Your task to perform on an android device: Open internet settings Image 0: 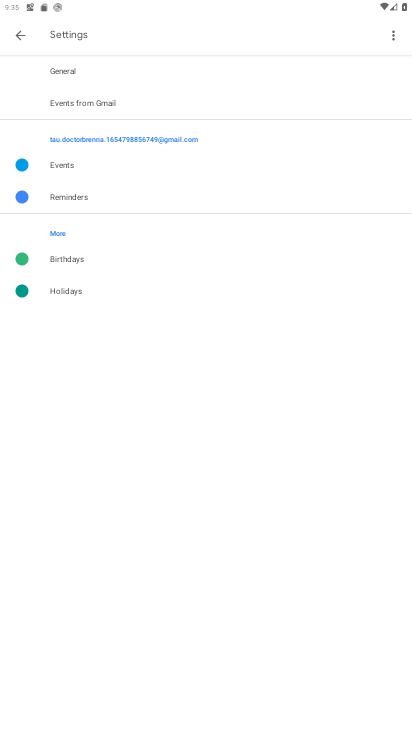
Step 0: press home button
Your task to perform on an android device: Open internet settings Image 1: 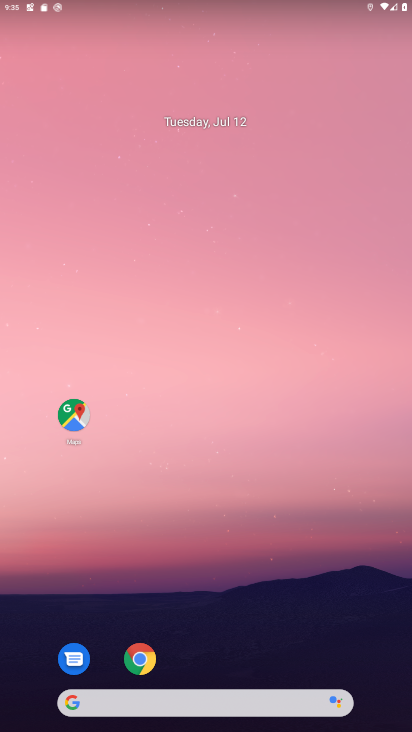
Step 1: drag from (231, 654) to (255, 66)
Your task to perform on an android device: Open internet settings Image 2: 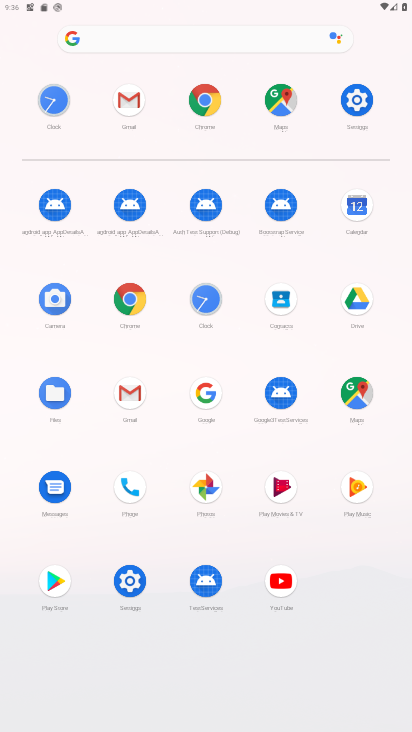
Step 2: click (122, 575)
Your task to perform on an android device: Open internet settings Image 3: 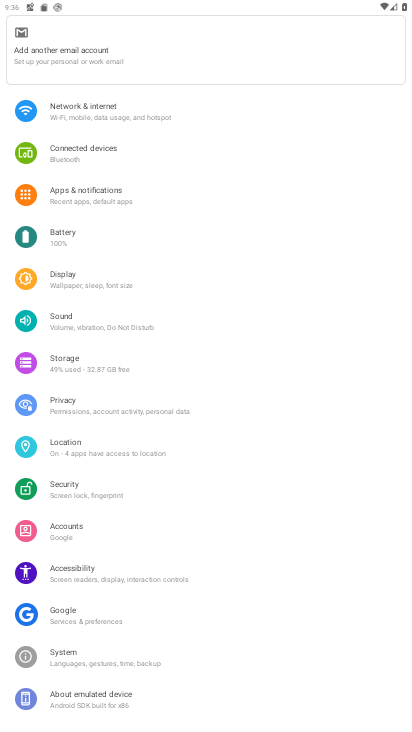
Step 3: click (90, 112)
Your task to perform on an android device: Open internet settings Image 4: 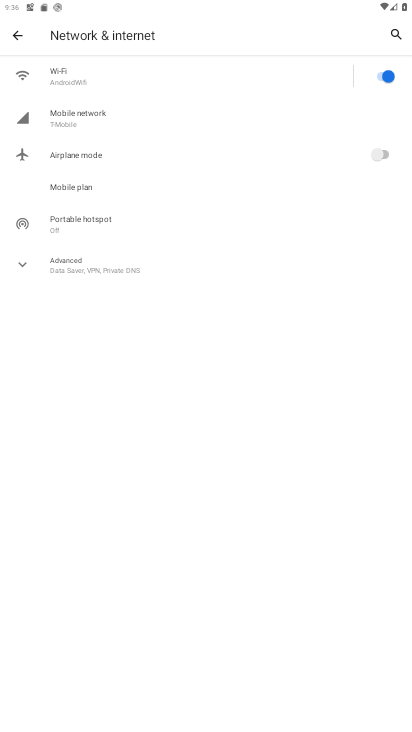
Step 4: task complete